Your task to perform on an android device: Search for the best coffee tables on Crate & Barrel Image 0: 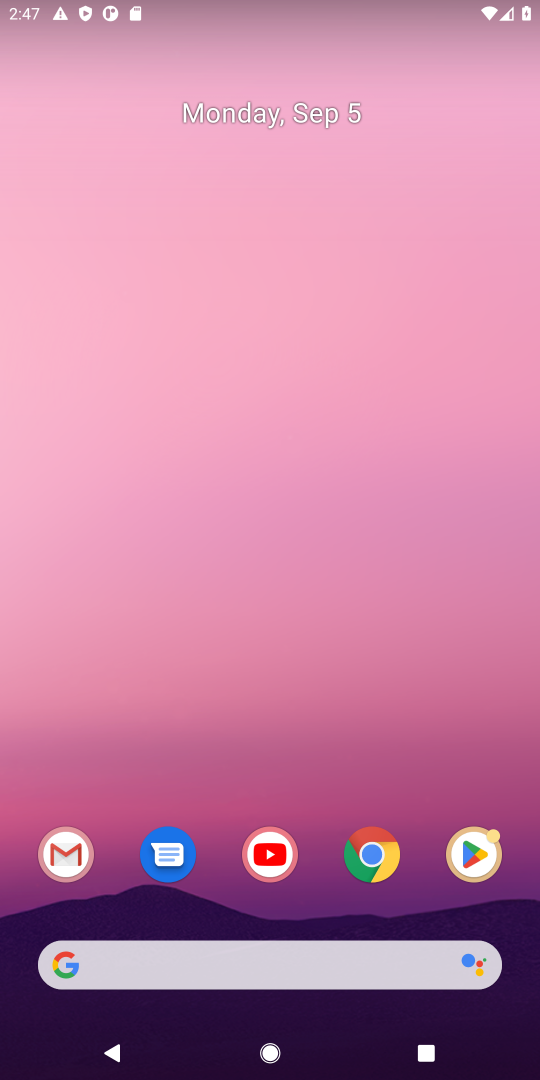
Step 0: click (401, 960)
Your task to perform on an android device: Search for the best coffee tables on Crate & Barrel Image 1: 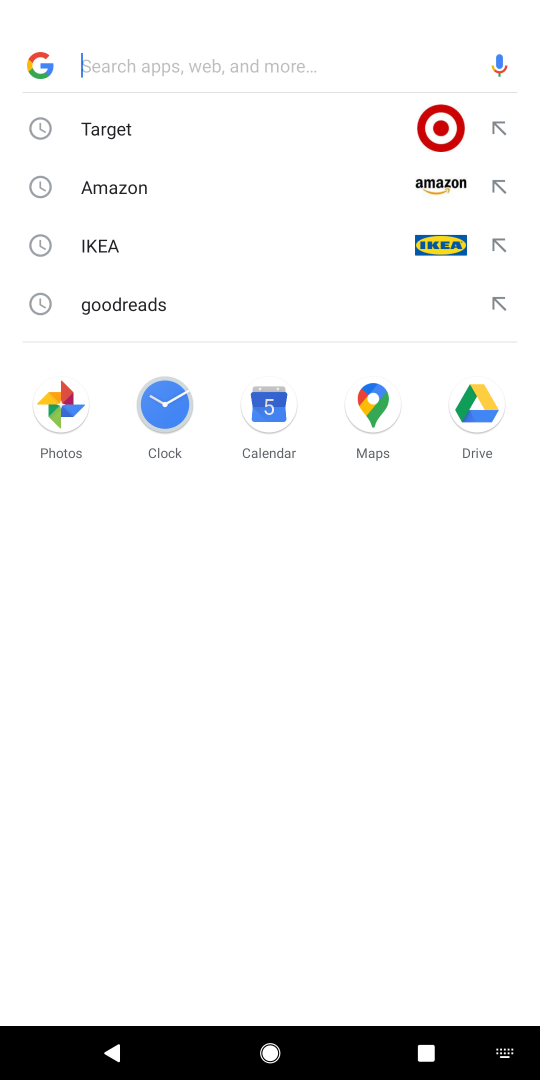
Step 1: type "crate barrel "
Your task to perform on an android device: Search for the best coffee tables on Crate & Barrel Image 2: 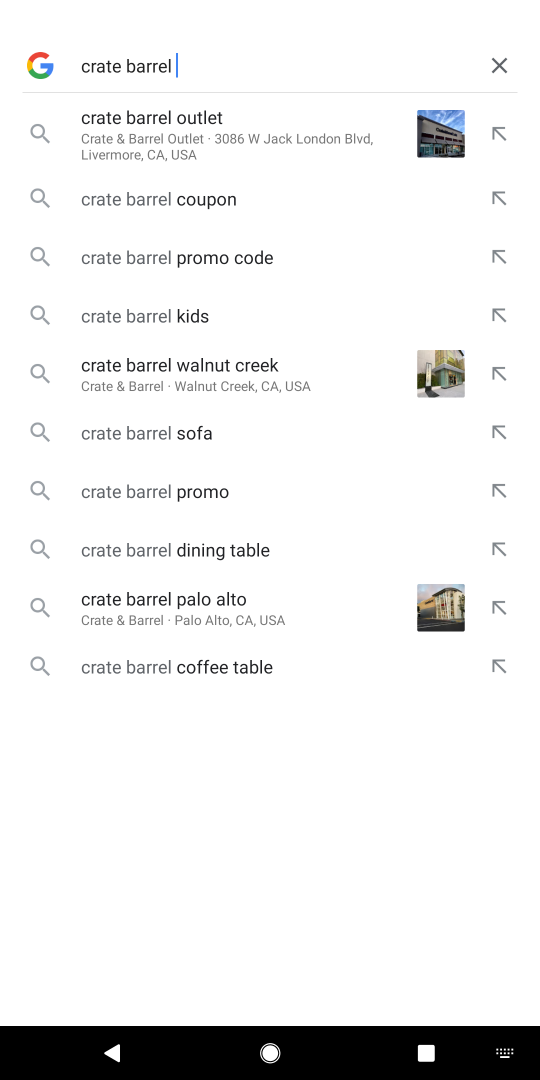
Step 2: press enter
Your task to perform on an android device: Search for the best coffee tables on Crate & Barrel Image 3: 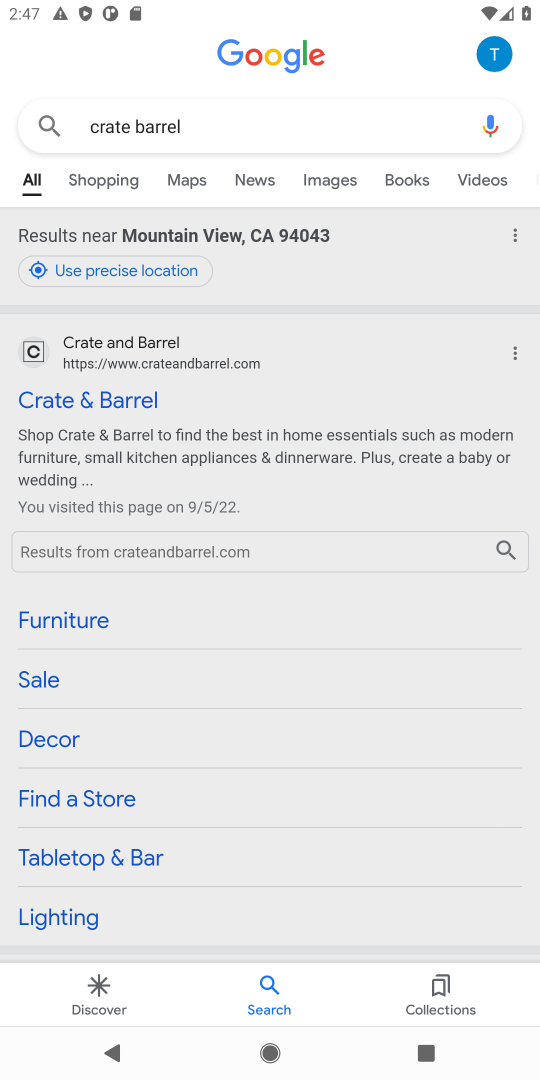
Step 3: click (95, 402)
Your task to perform on an android device: Search for the best coffee tables on Crate & Barrel Image 4: 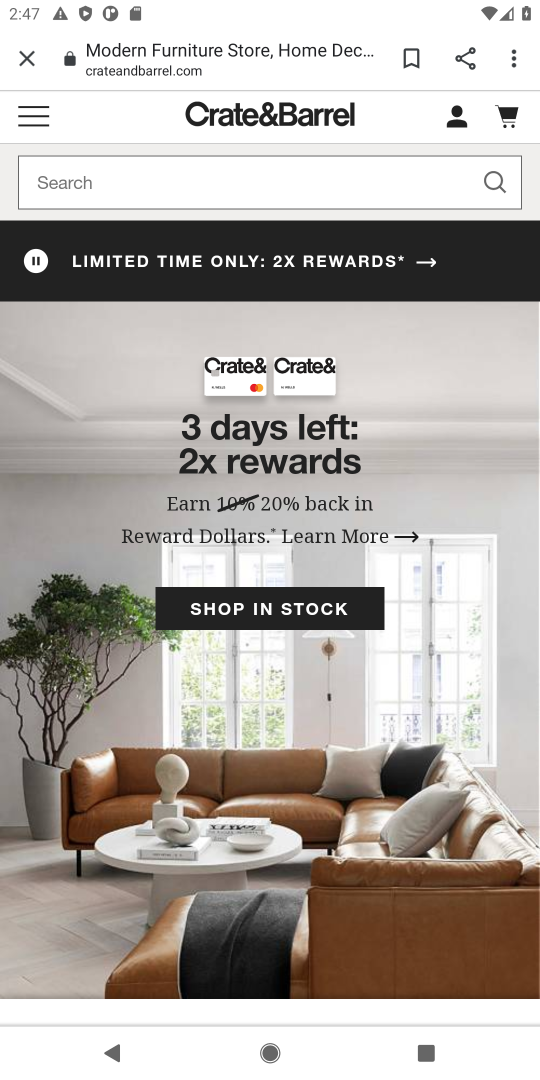
Step 4: click (195, 179)
Your task to perform on an android device: Search for the best coffee tables on Crate & Barrel Image 5: 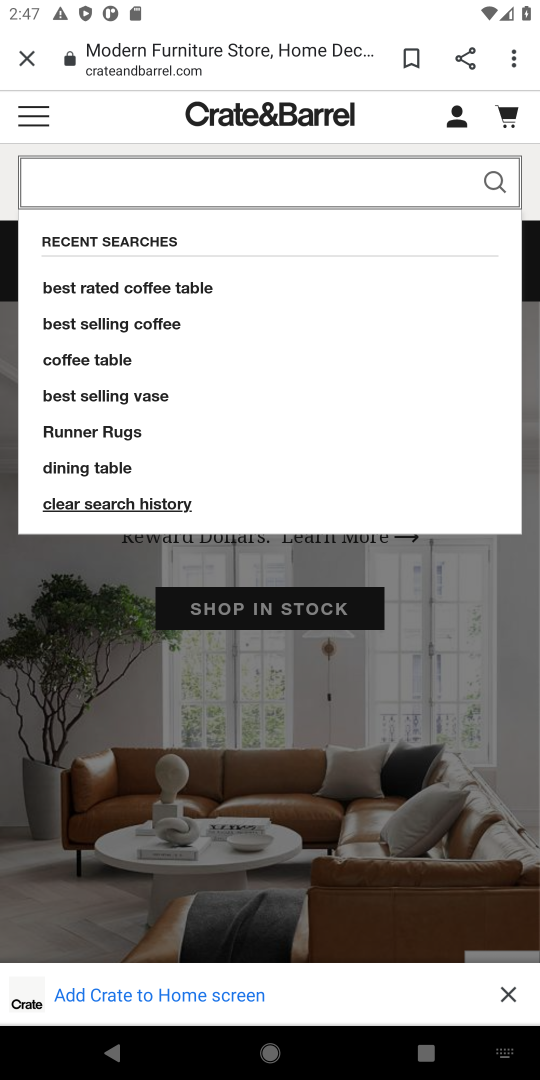
Step 5: press enter
Your task to perform on an android device: Search for the best coffee tables on Crate & Barrel Image 6: 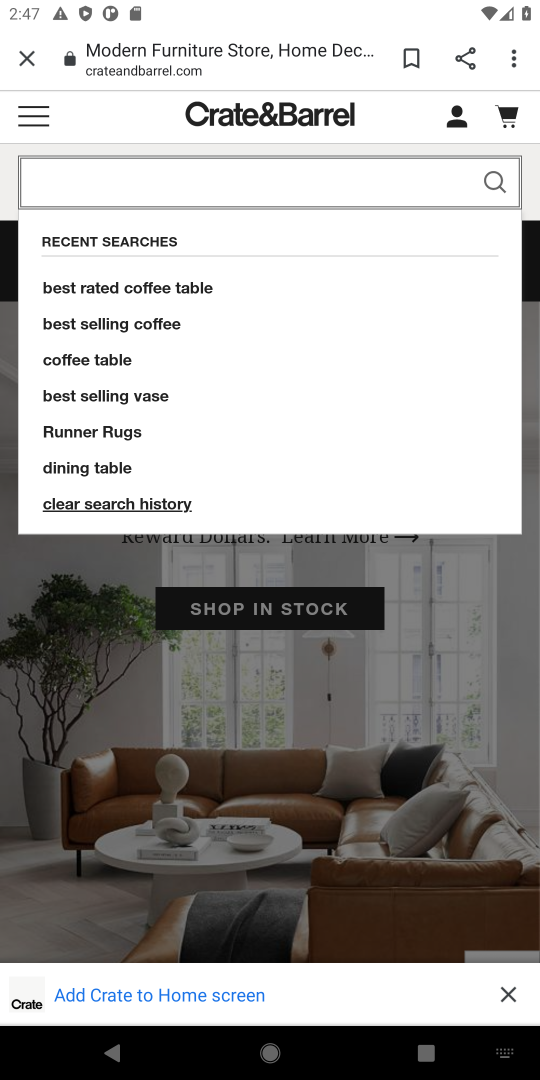
Step 6: type "best coffee taables"
Your task to perform on an android device: Search for the best coffee tables on Crate & Barrel Image 7: 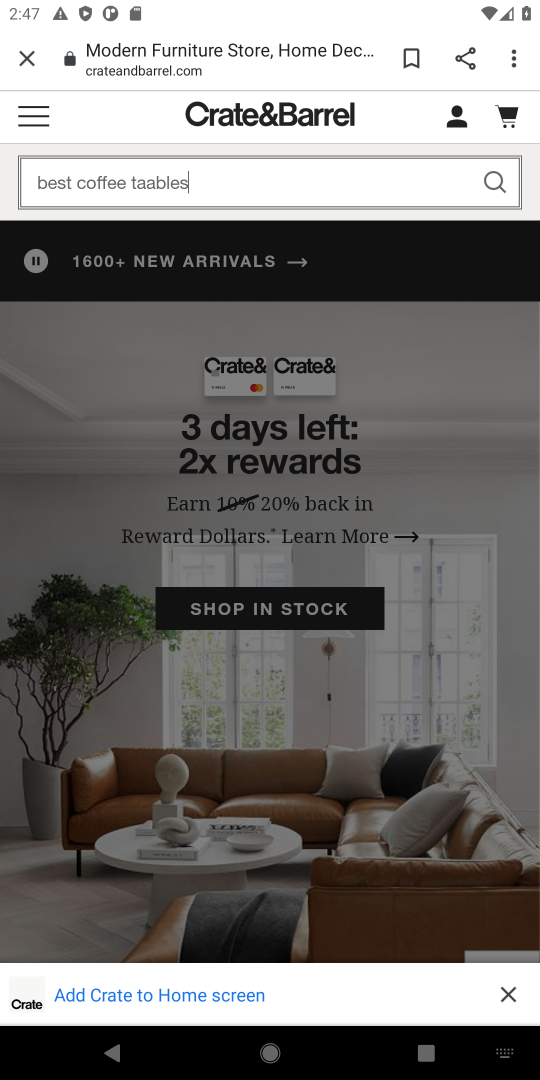
Step 7: click (492, 176)
Your task to perform on an android device: Search for the best coffee tables on Crate & Barrel Image 8: 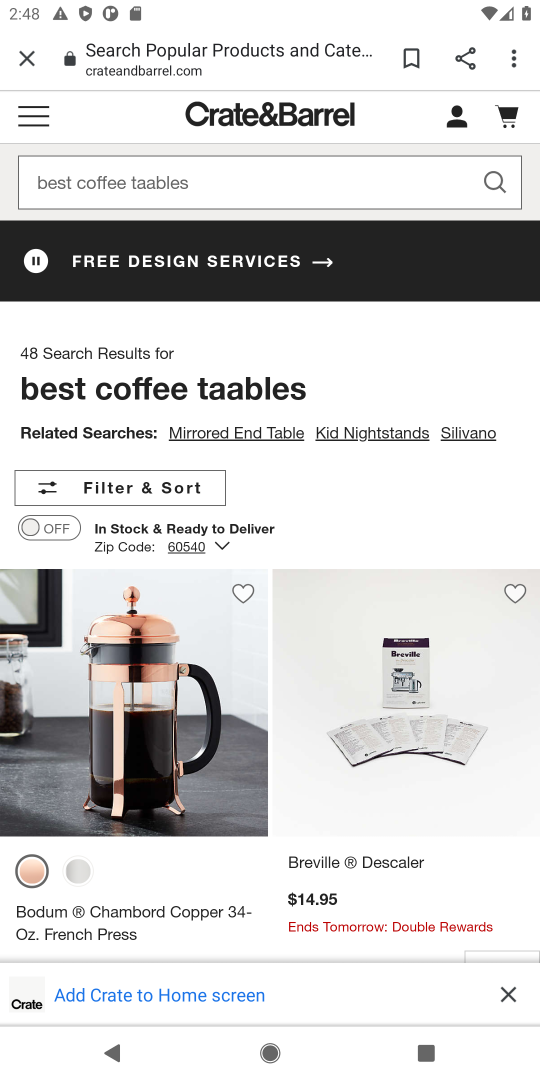
Step 8: task complete